Your task to perform on an android device: open device folders in google photos Image 0: 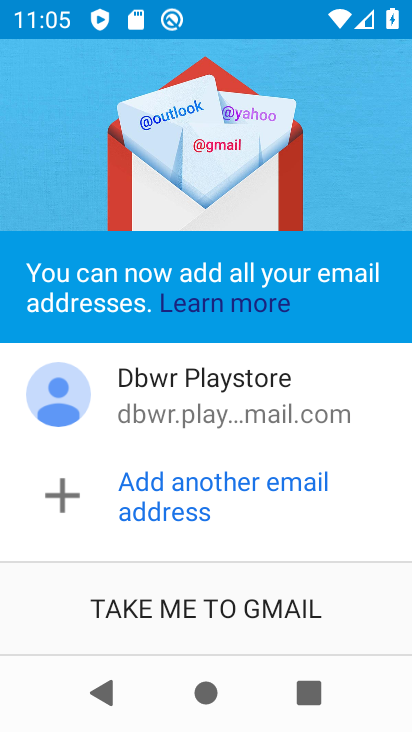
Step 0: press home button
Your task to perform on an android device: open device folders in google photos Image 1: 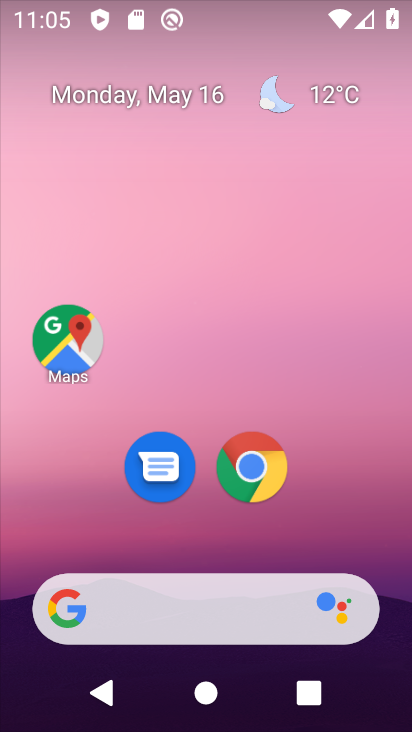
Step 1: drag from (215, 542) to (224, 1)
Your task to perform on an android device: open device folders in google photos Image 2: 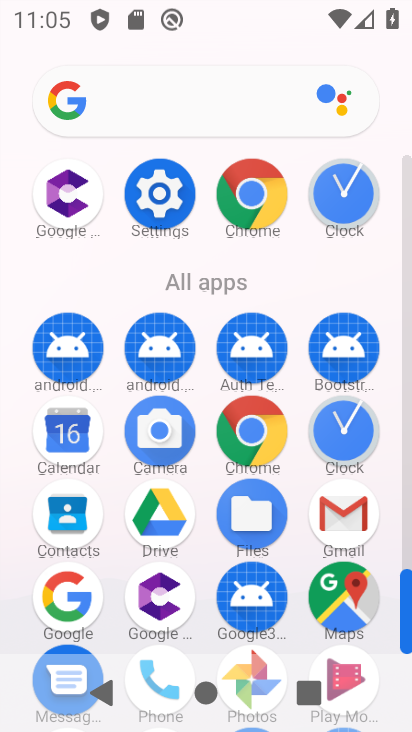
Step 2: drag from (217, 555) to (219, 255)
Your task to perform on an android device: open device folders in google photos Image 3: 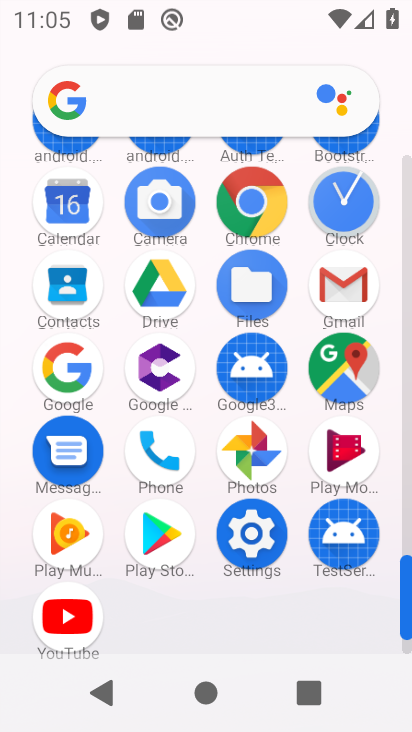
Step 3: click (249, 445)
Your task to perform on an android device: open device folders in google photos Image 4: 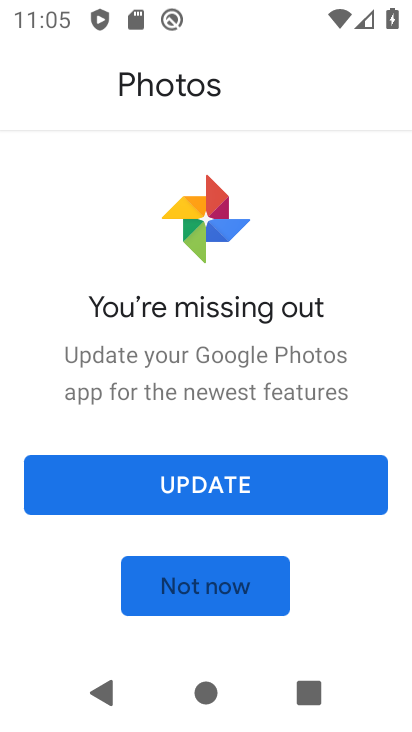
Step 4: click (200, 579)
Your task to perform on an android device: open device folders in google photos Image 5: 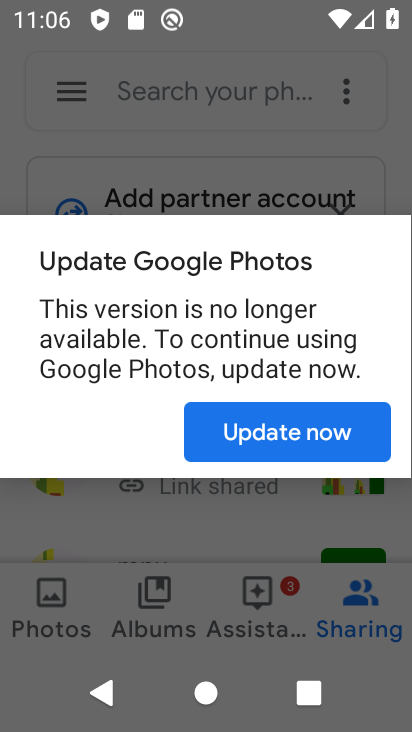
Step 5: click (76, 79)
Your task to perform on an android device: open device folders in google photos Image 6: 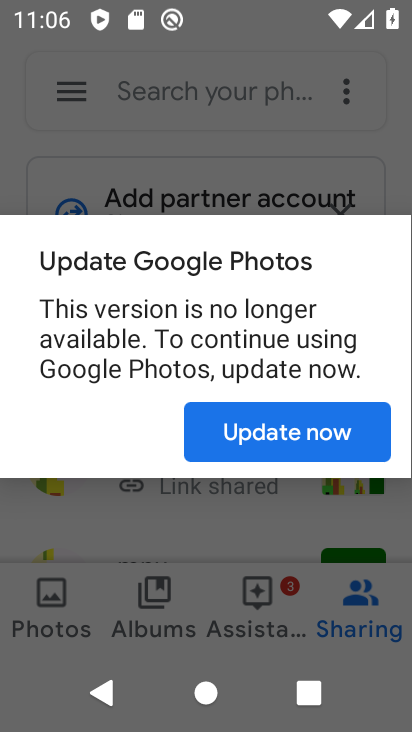
Step 6: click (266, 443)
Your task to perform on an android device: open device folders in google photos Image 7: 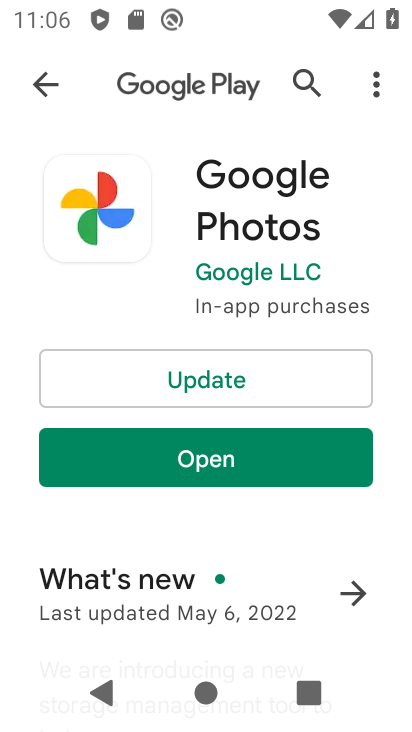
Step 7: press back button
Your task to perform on an android device: open device folders in google photos Image 8: 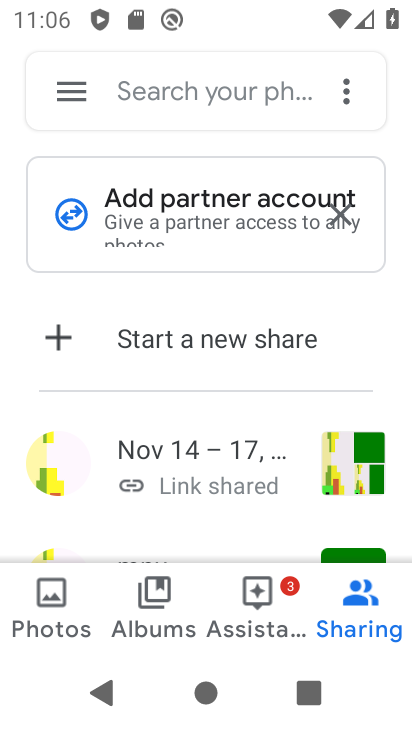
Step 8: click (60, 93)
Your task to perform on an android device: open device folders in google photos Image 9: 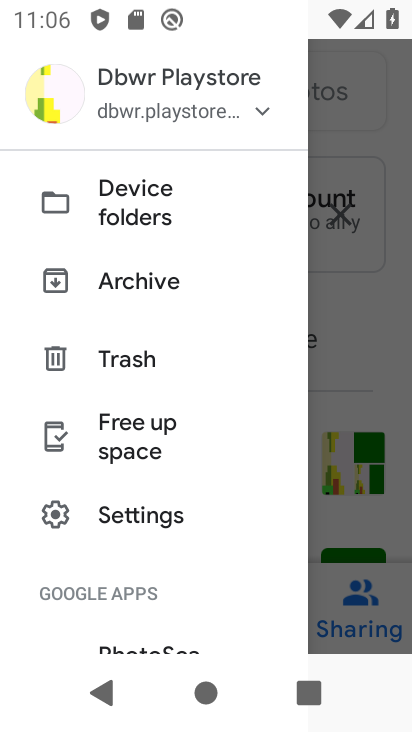
Step 9: click (110, 198)
Your task to perform on an android device: open device folders in google photos Image 10: 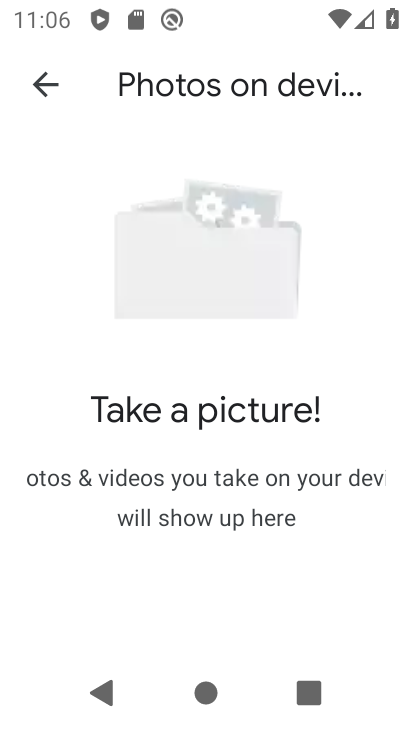
Step 10: task complete